Your task to perform on an android device: Add "macbook air" to the cart on newegg.com, then select checkout. Image 0: 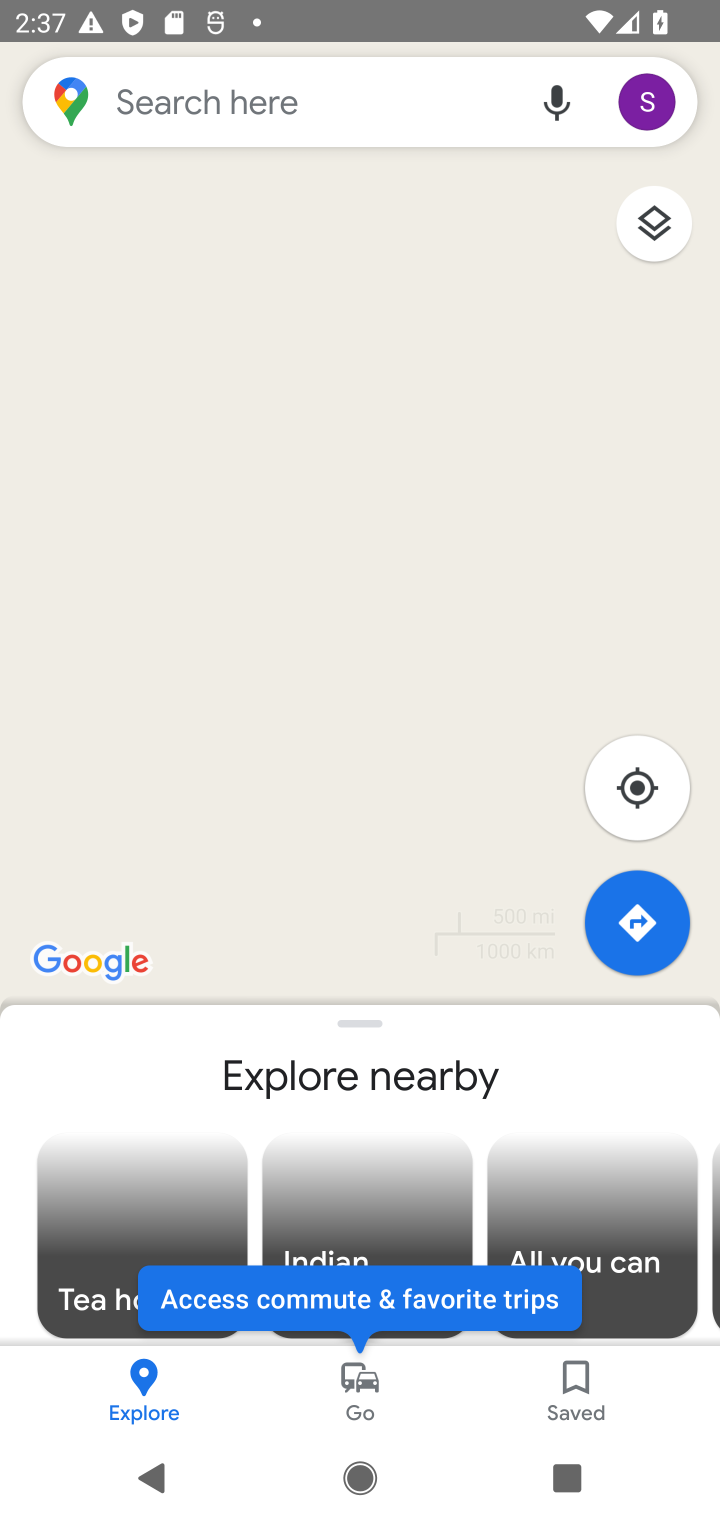
Step 0: press home button
Your task to perform on an android device: Add "macbook air" to the cart on newegg.com, then select checkout. Image 1: 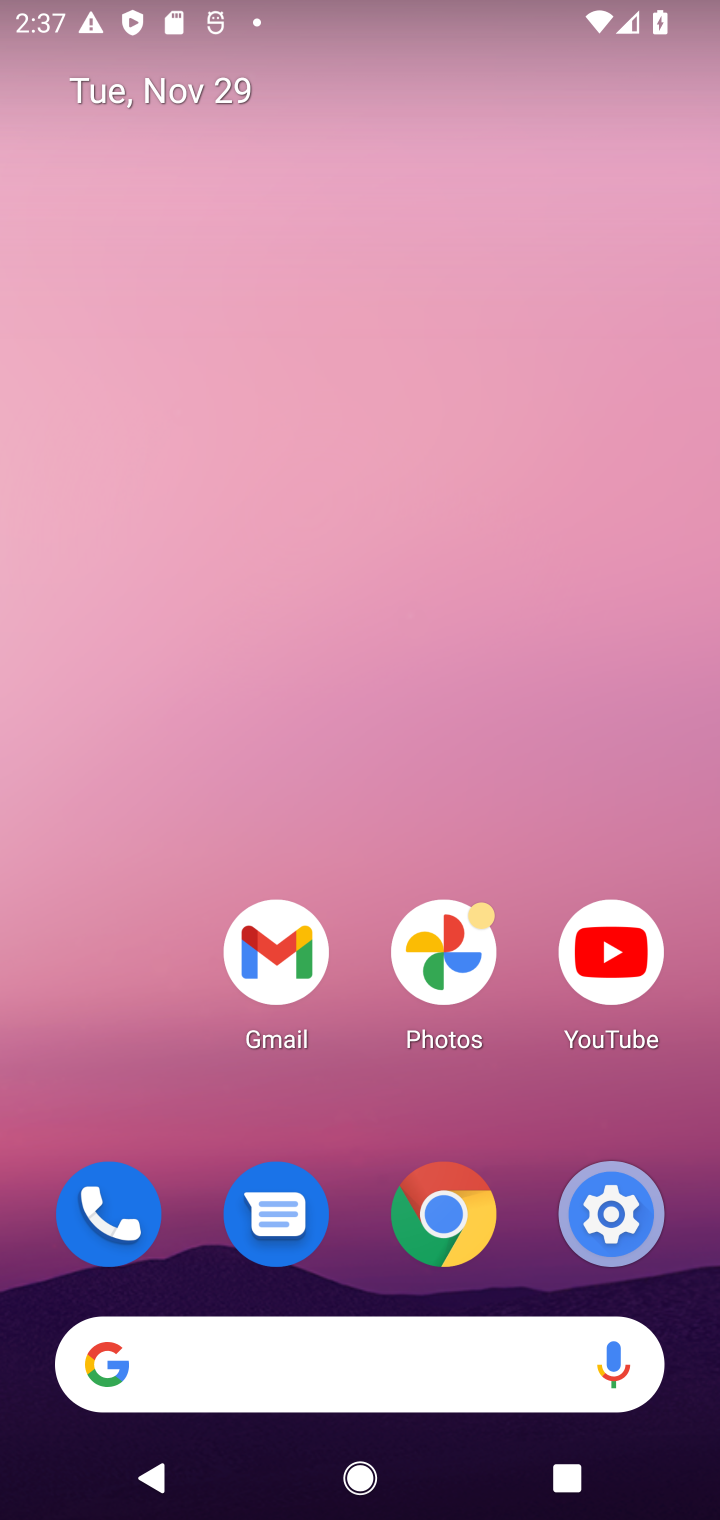
Step 1: click (397, 1380)
Your task to perform on an android device: Add "macbook air" to the cart on newegg.com, then select checkout. Image 2: 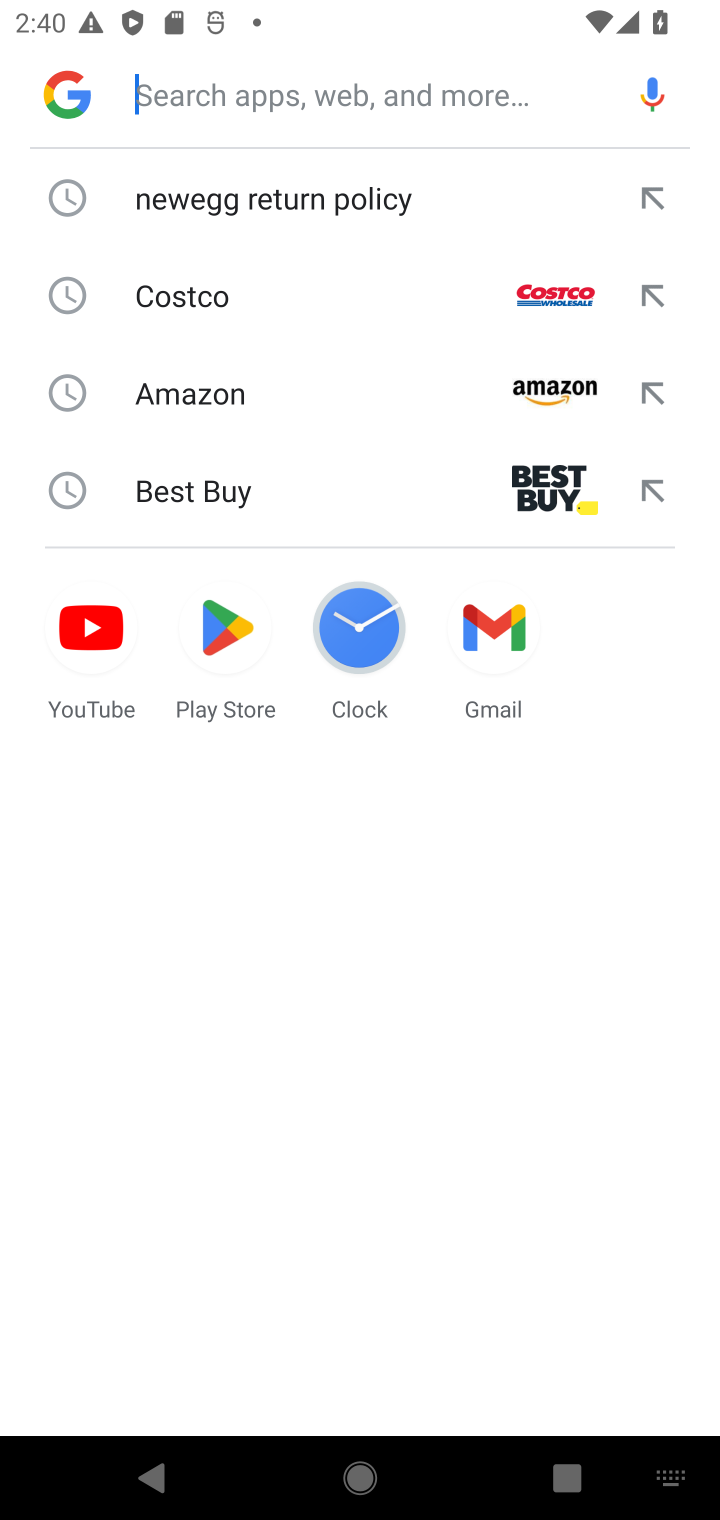
Step 2: click (281, 197)
Your task to perform on an android device: Add "macbook air" to the cart on newegg.com, then select checkout. Image 3: 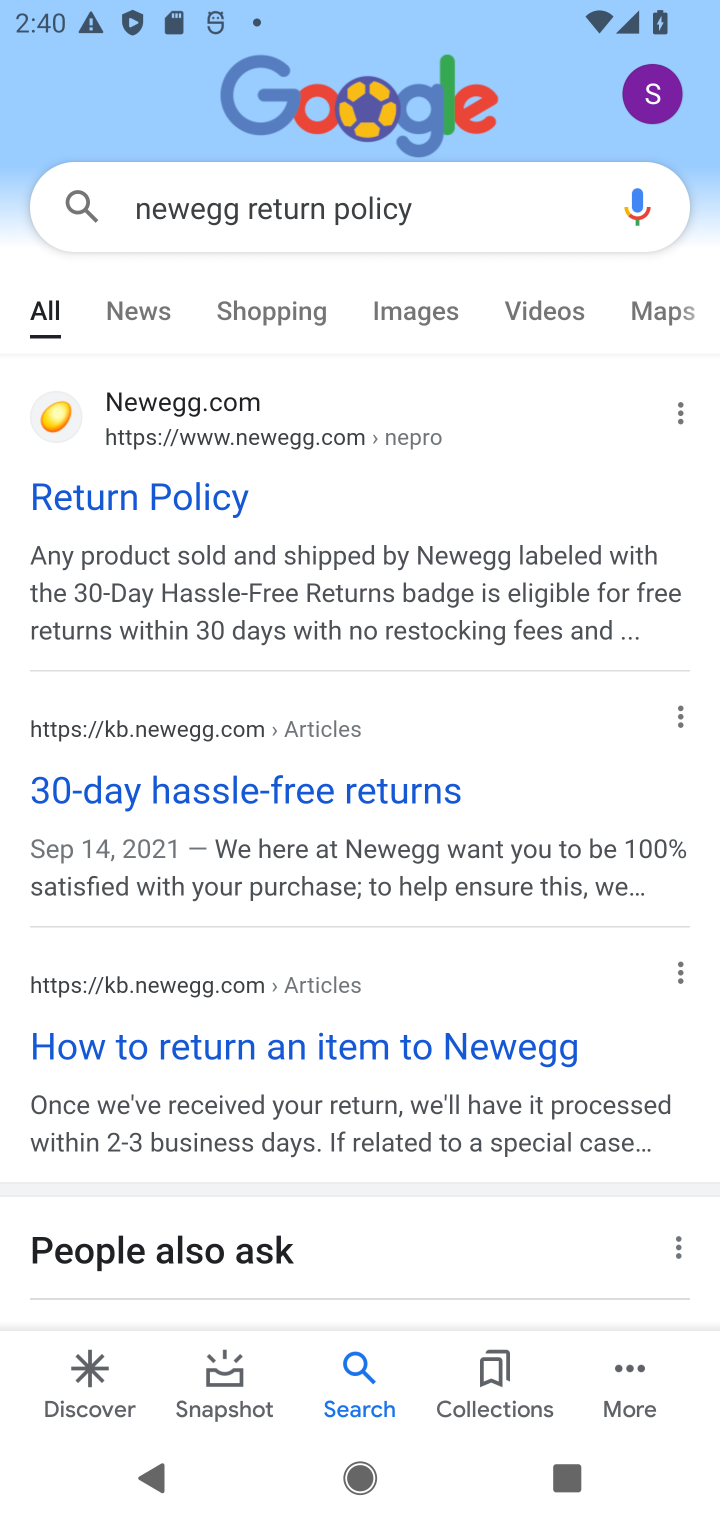
Step 3: click (130, 513)
Your task to perform on an android device: Add "macbook air" to the cart on newegg.com, then select checkout. Image 4: 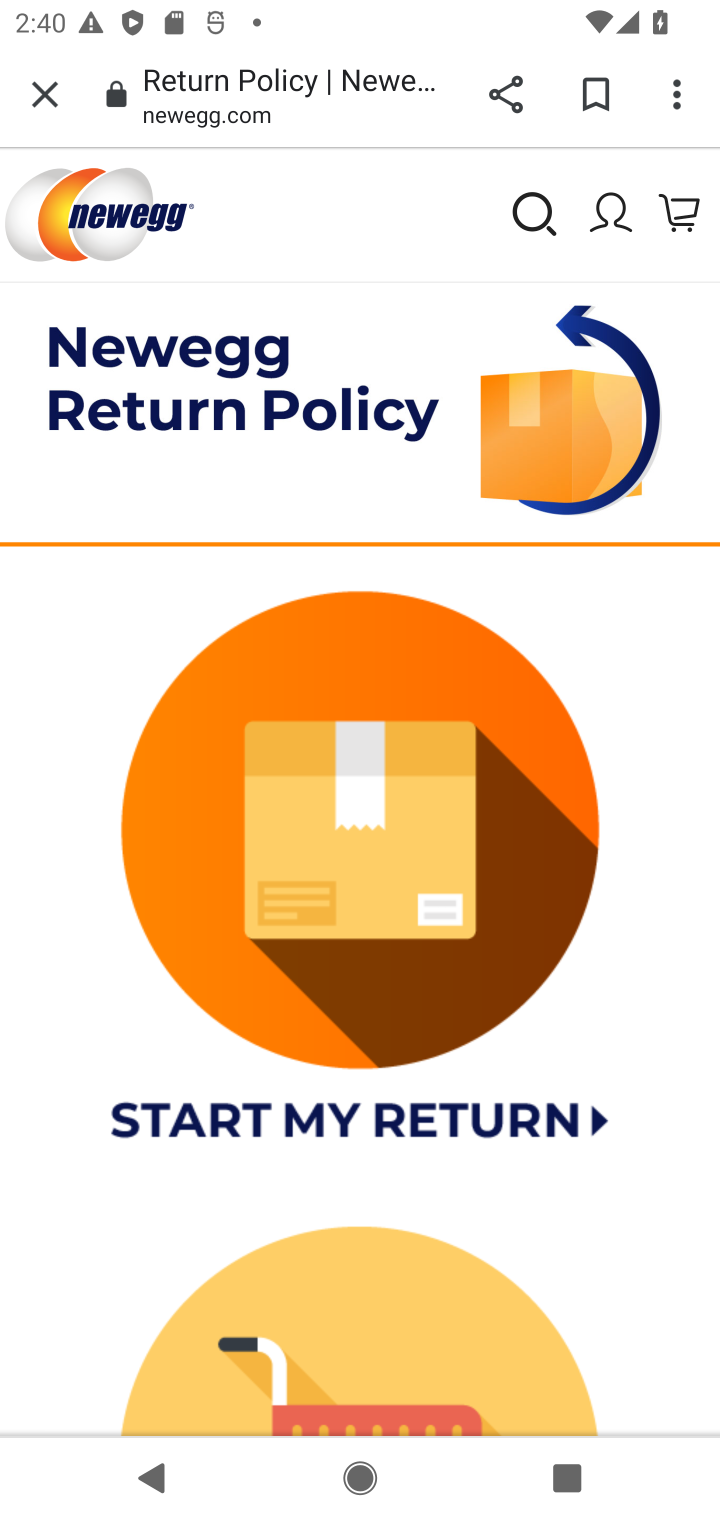
Step 4: task complete